Your task to perform on an android device: Open calendar and show me the third week of next month Image 0: 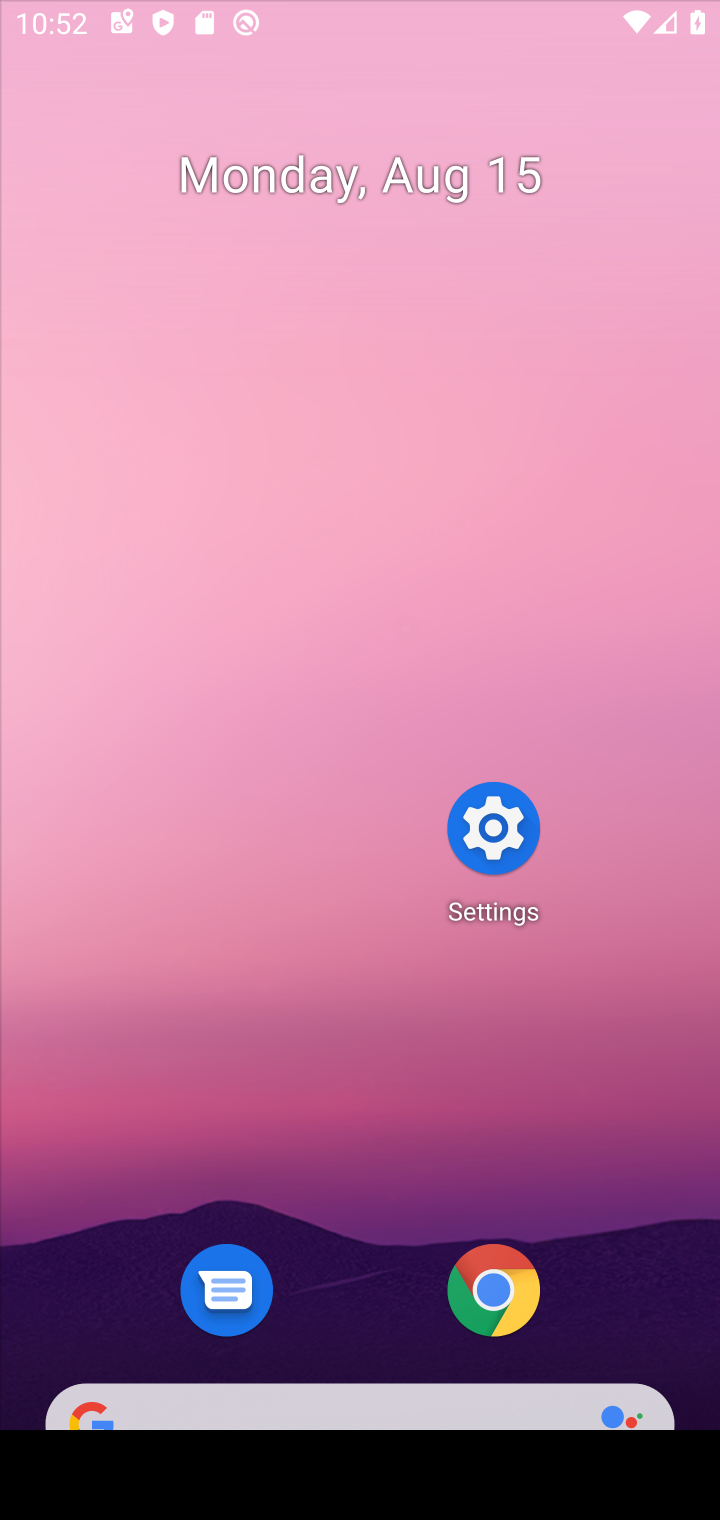
Step 0: press home button
Your task to perform on an android device: Open calendar and show me the third week of next month Image 1: 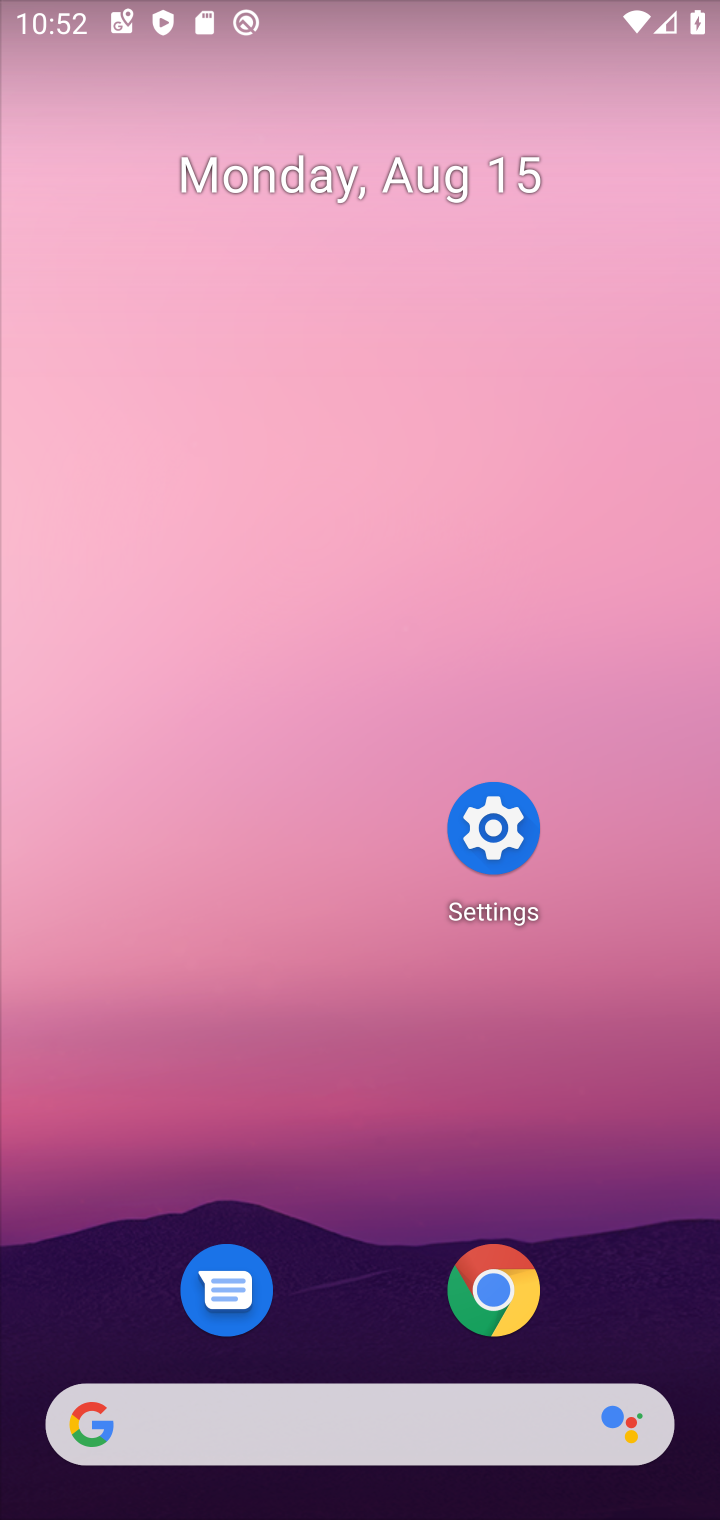
Step 1: drag from (402, 1388) to (650, 36)
Your task to perform on an android device: Open calendar and show me the third week of next month Image 2: 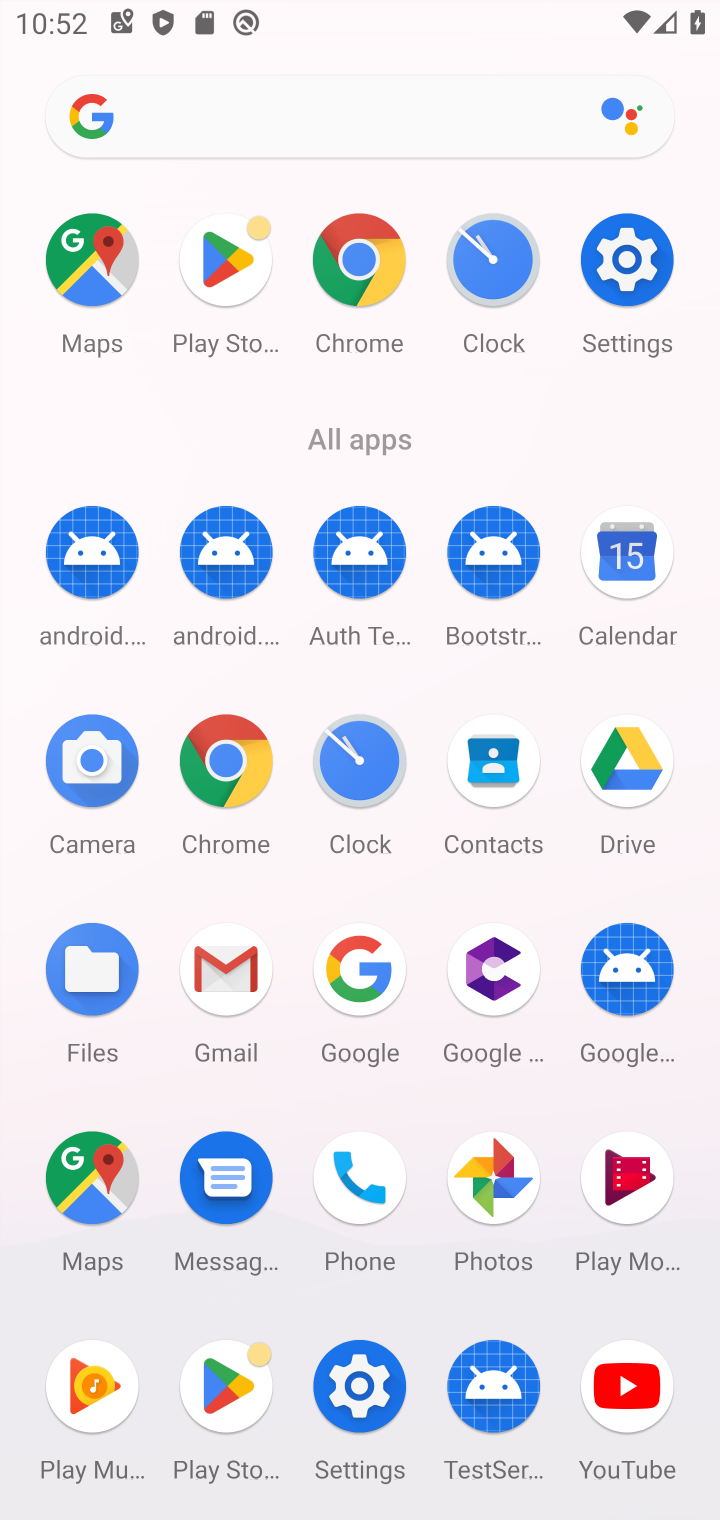
Step 2: click (628, 555)
Your task to perform on an android device: Open calendar and show me the third week of next month Image 3: 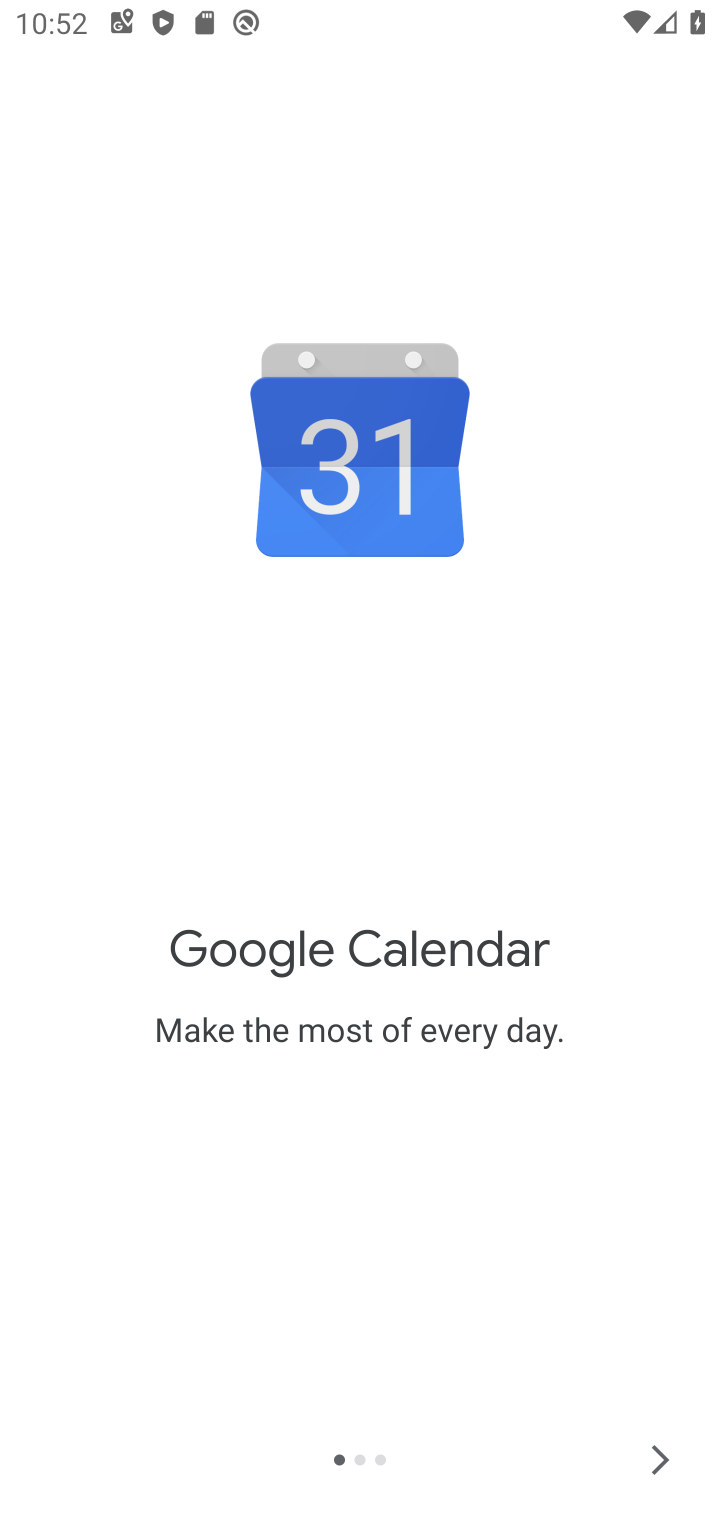
Step 3: click (654, 1441)
Your task to perform on an android device: Open calendar and show me the third week of next month Image 4: 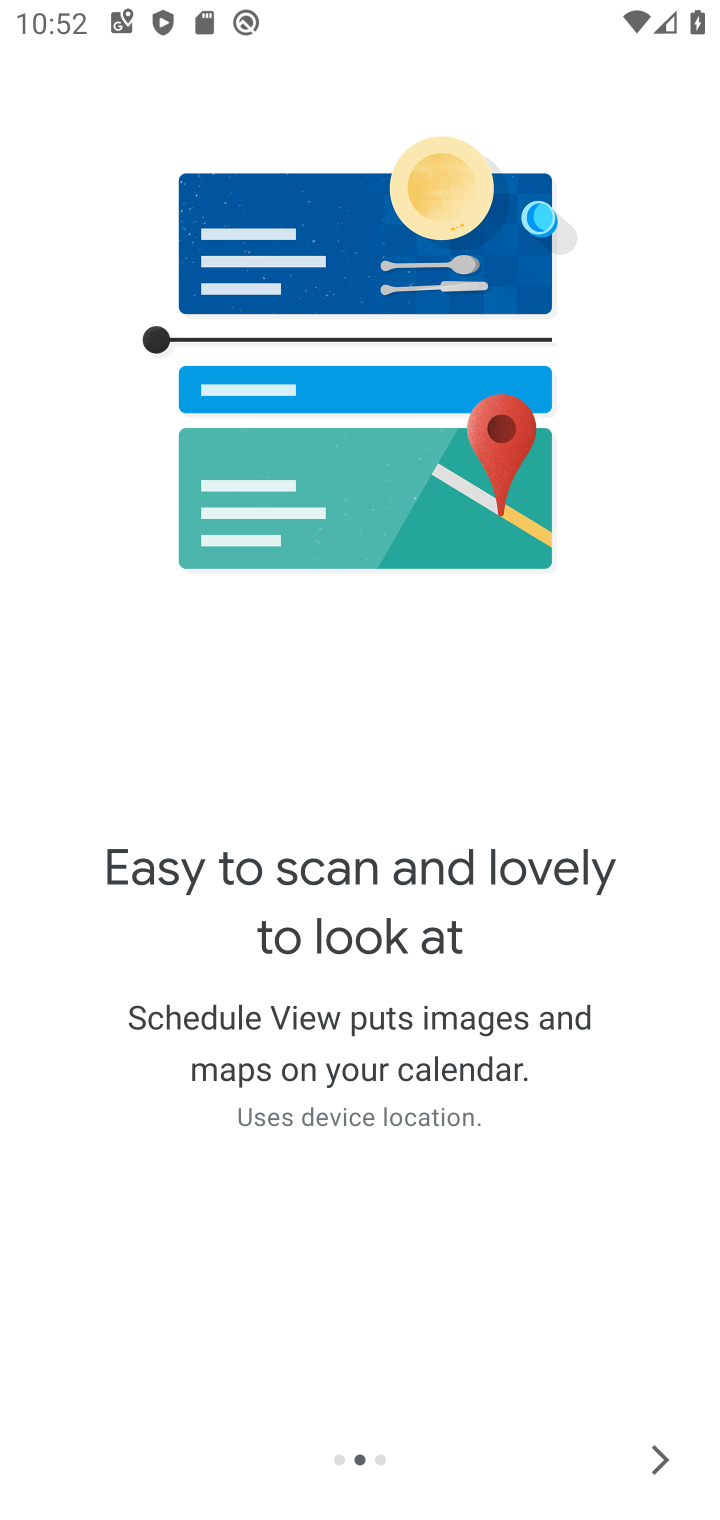
Step 4: click (654, 1443)
Your task to perform on an android device: Open calendar and show me the third week of next month Image 5: 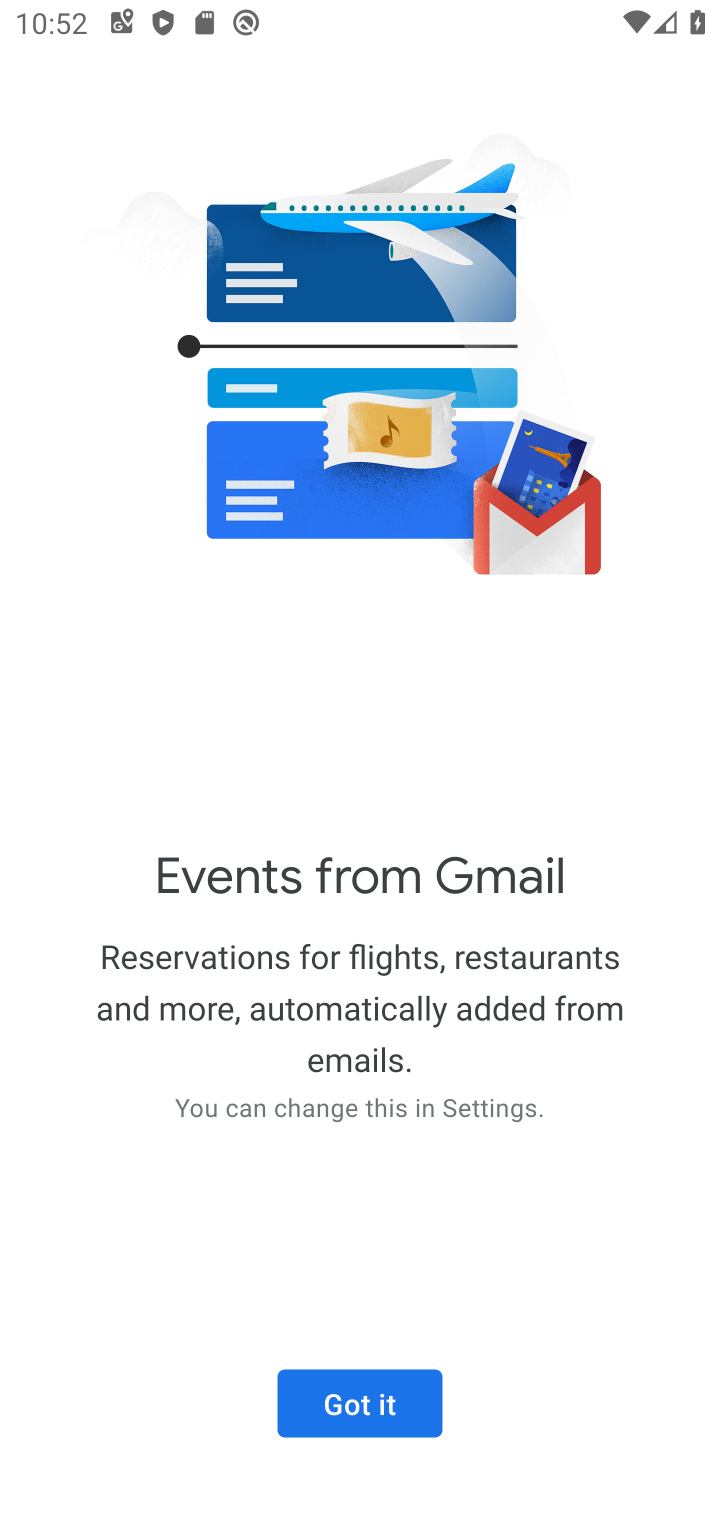
Step 5: click (437, 1378)
Your task to perform on an android device: Open calendar and show me the third week of next month Image 6: 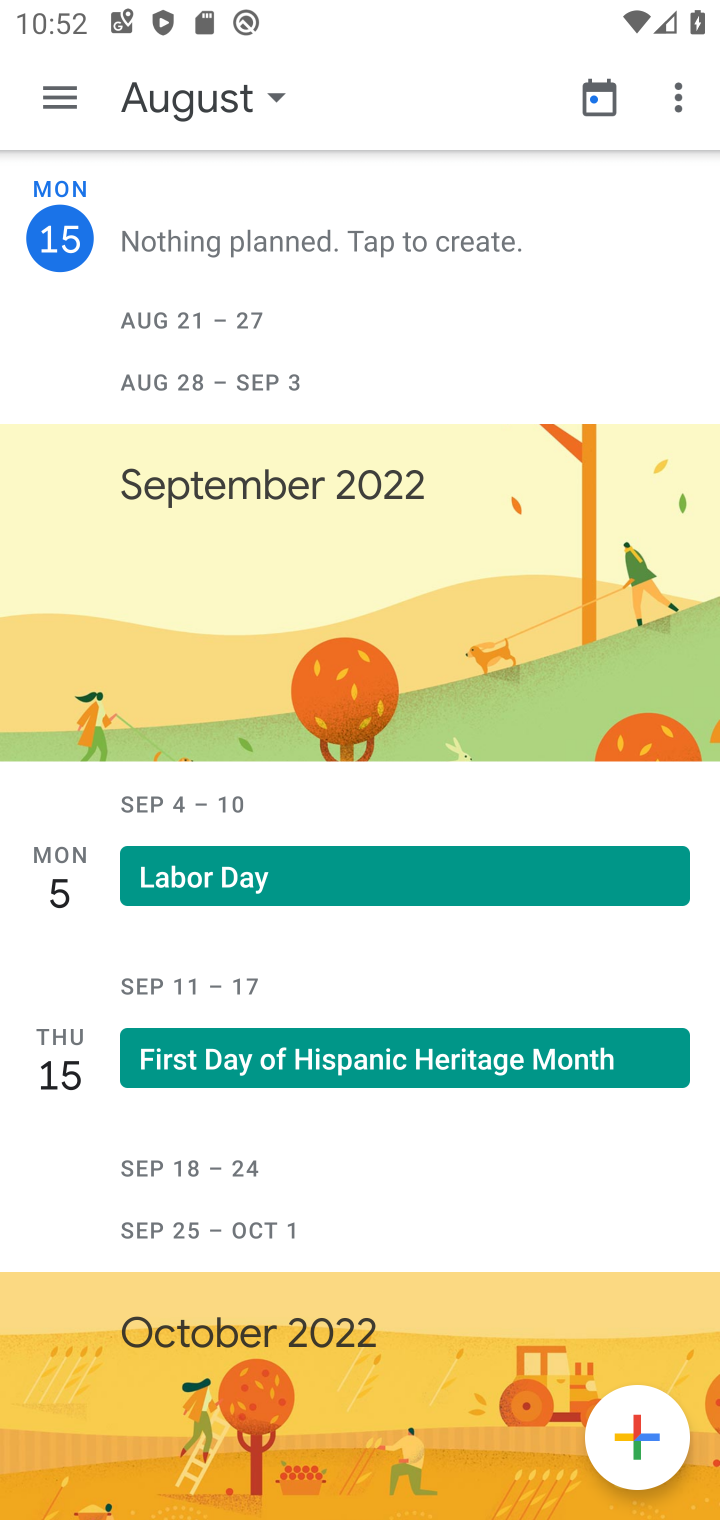
Step 6: click (184, 113)
Your task to perform on an android device: Open calendar and show me the third week of next month Image 7: 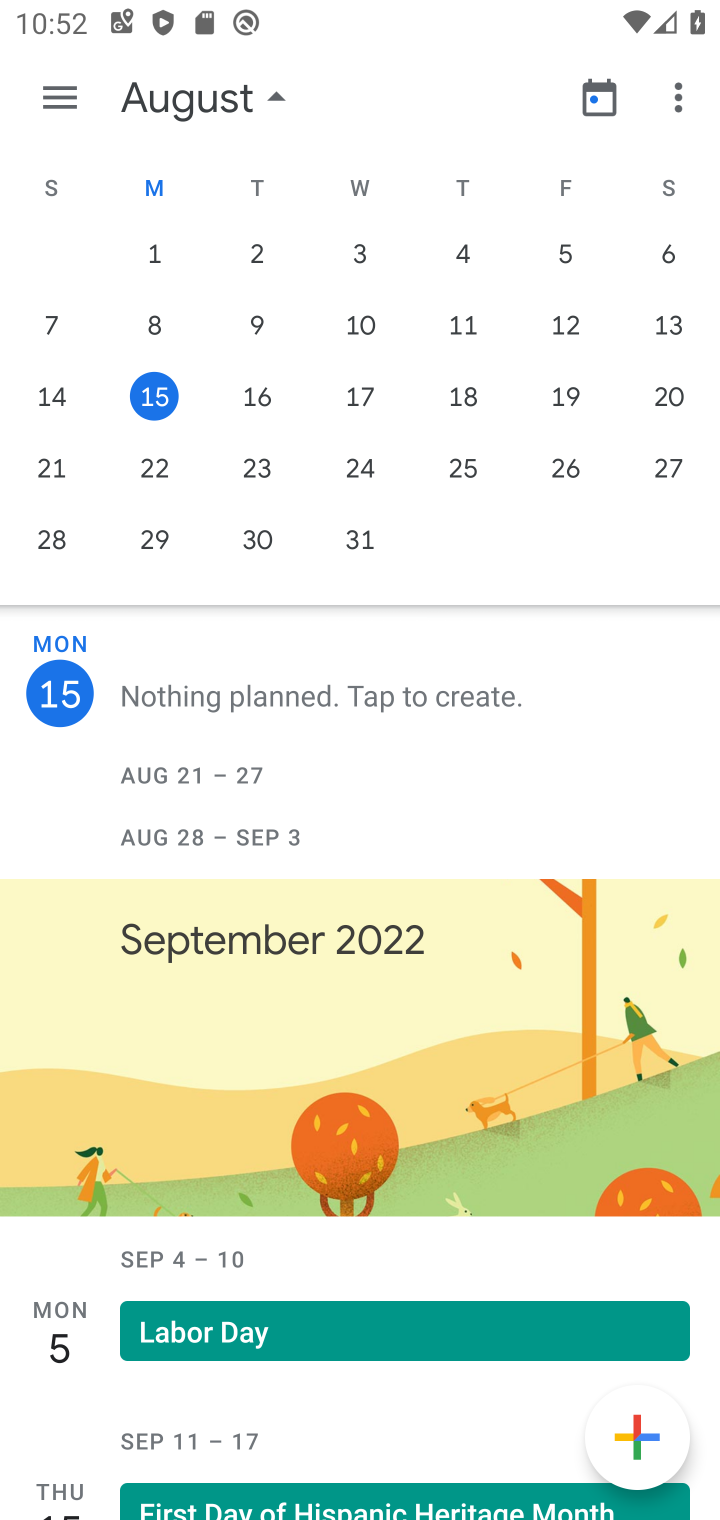
Step 7: drag from (619, 338) to (56, 363)
Your task to perform on an android device: Open calendar and show me the third week of next month Image 8: 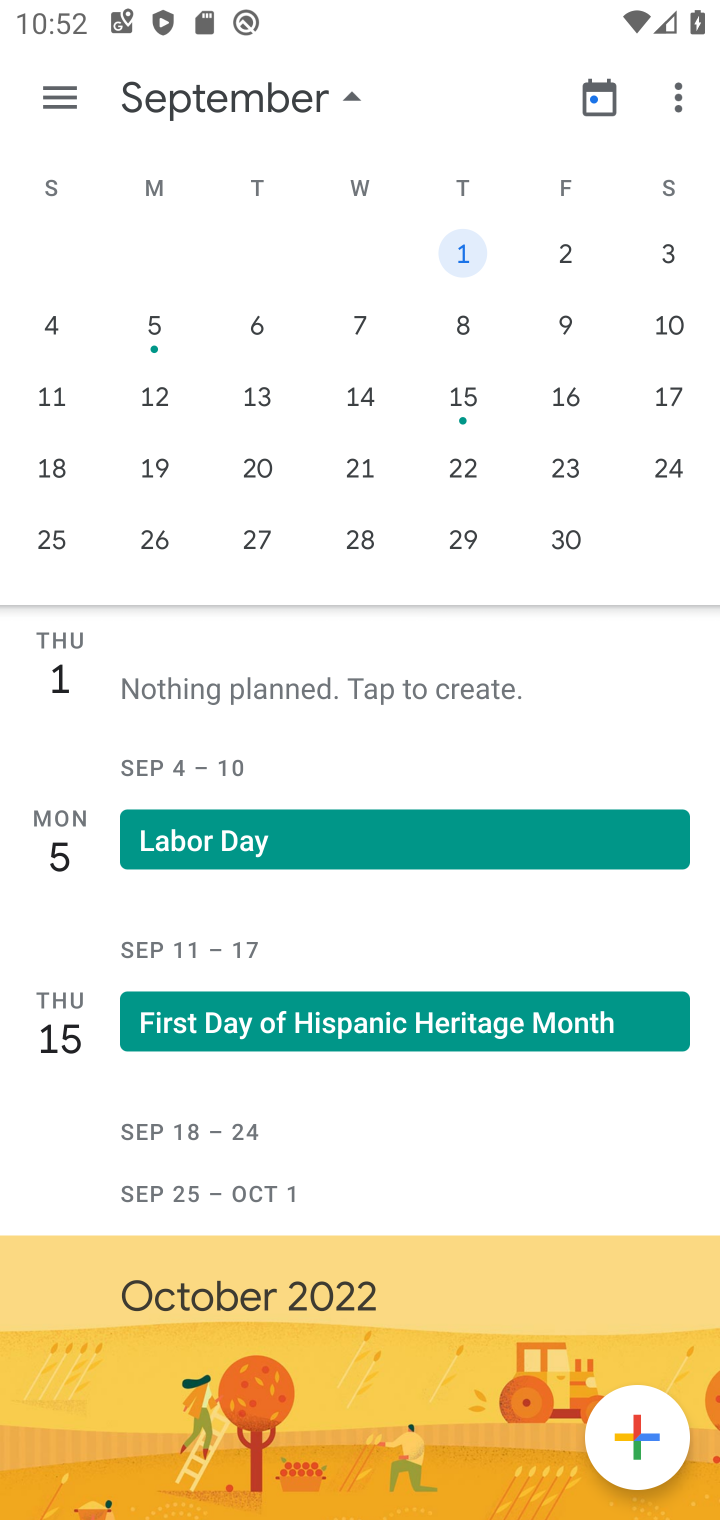
Step 8: click (51, 403)
Your task to perform on an android device: Open calendar and show me the third week of next month Image 9: 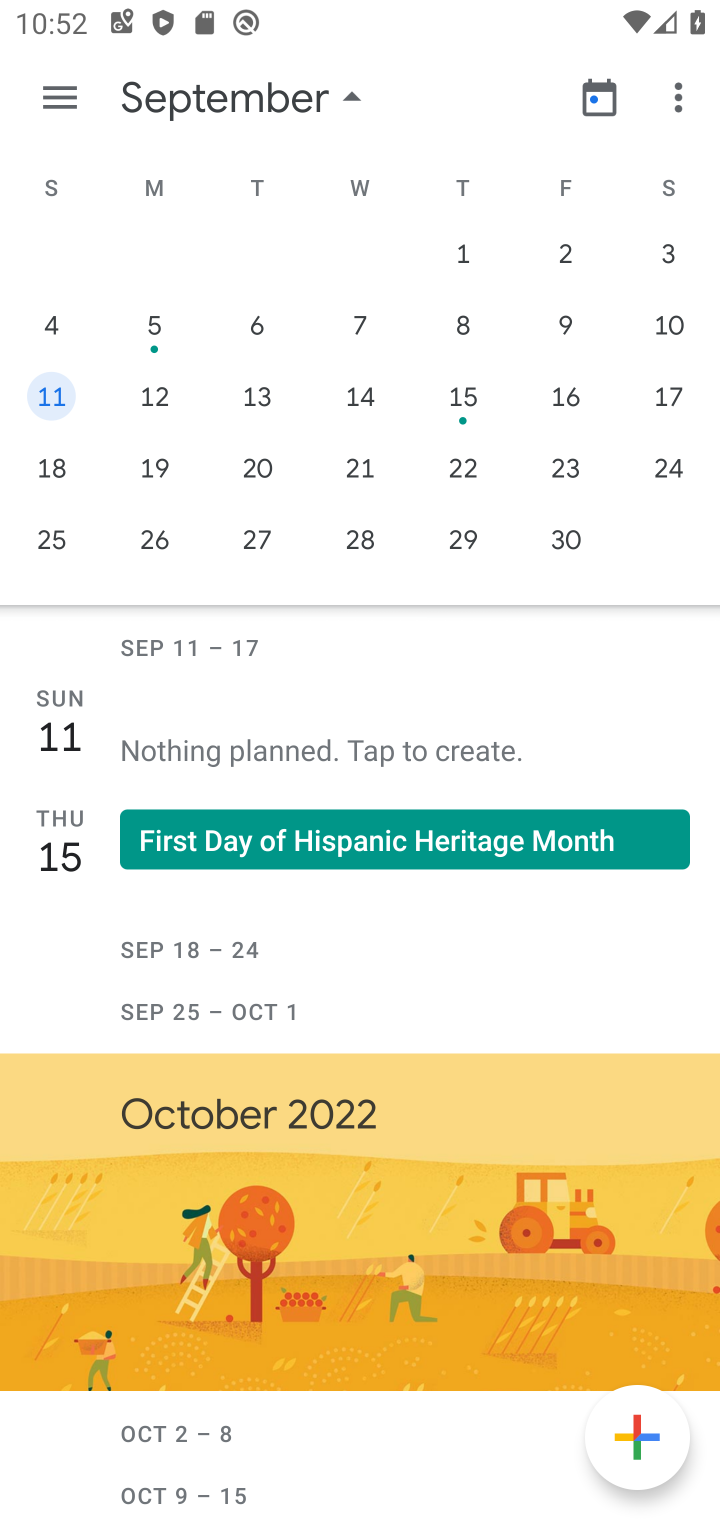
Step 9: click (47, 99)
Your task to perform on an android device: Open calendar and show me the third week of next month Image 10: 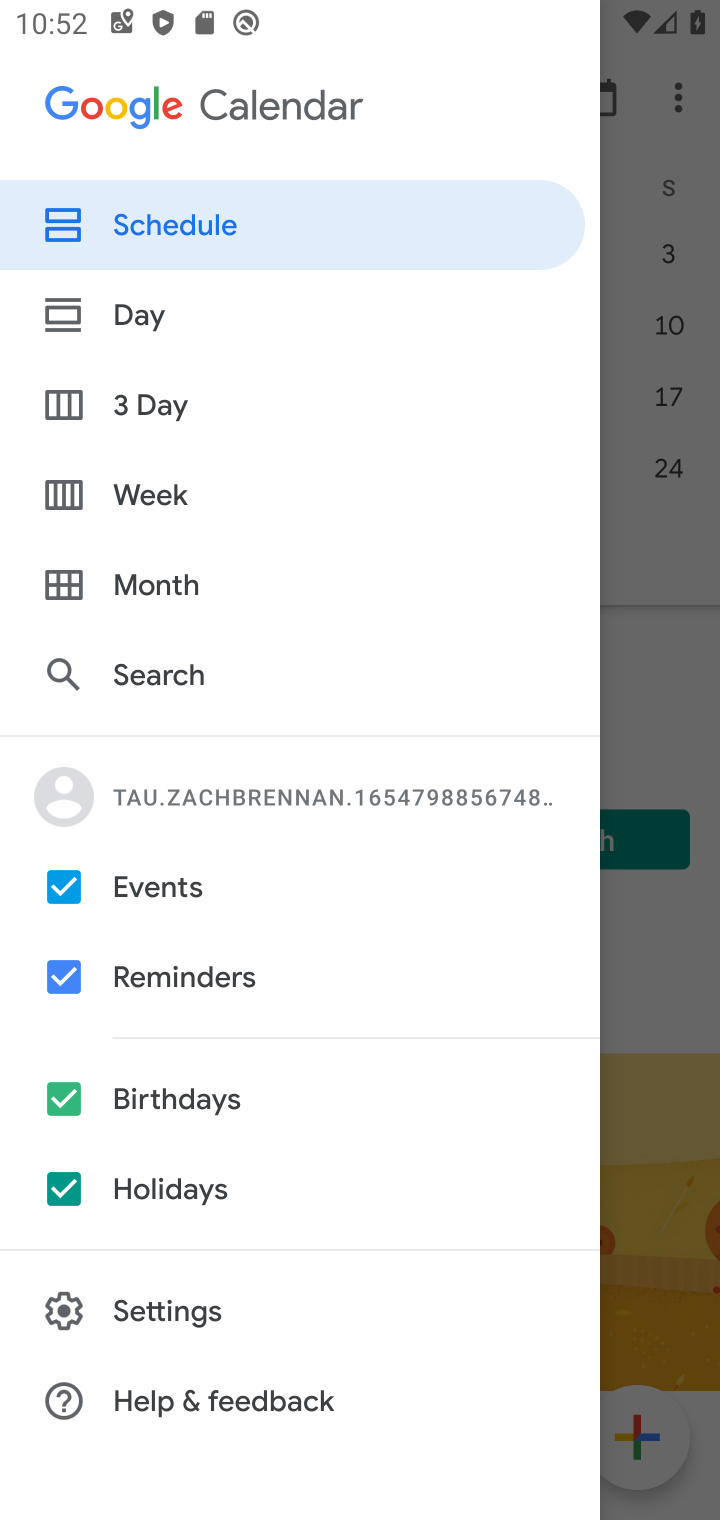
Step 10: click (155, 494)
Your task to perform on an android device: Open calendar and show me the third week of next month Image 11: 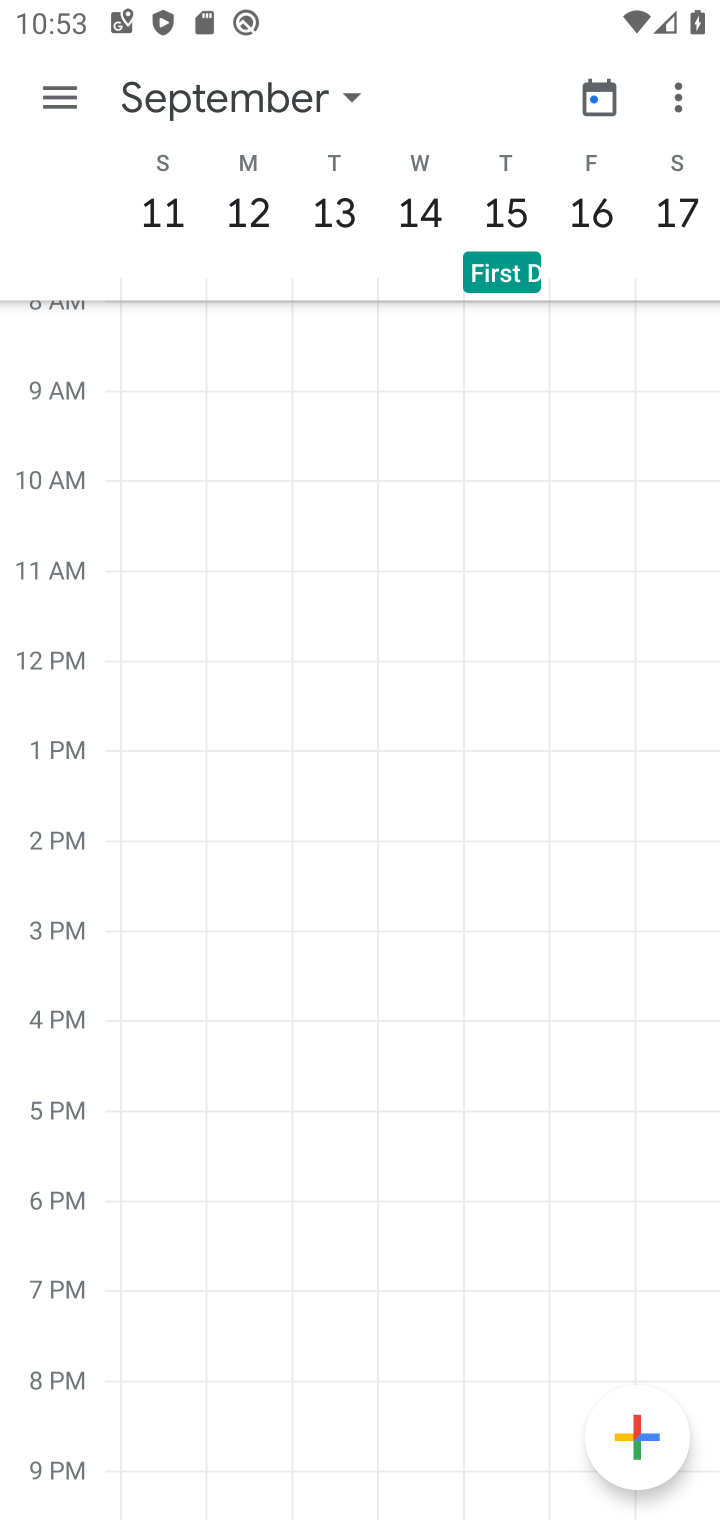
Step 11: task complete